Your task to perform on an android device: Go to network settings Image 0: 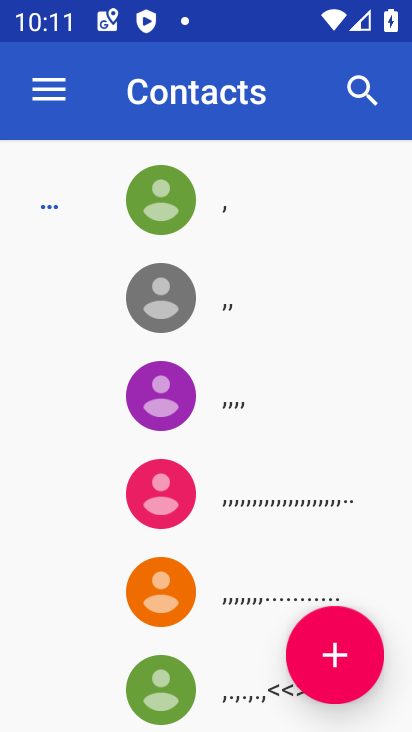
Step 0: press home button
Your task to perform on an android device: Go to network settings Image 1: 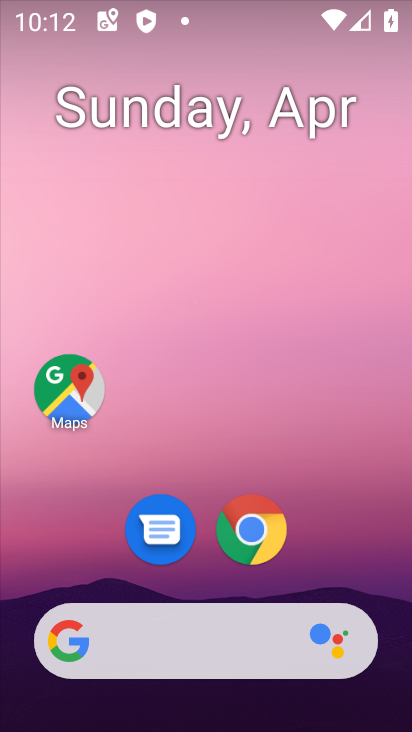
Step 1: drag from (215, 436) to (278, 69)
Your task to perform on an android device: Go to network settings Image 2: 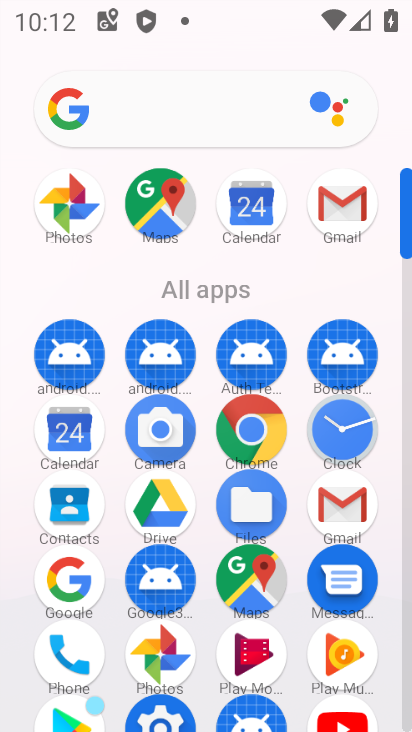
Step 2: click (167, 721)
Your task to perform on an android device: Go to network settings Image 3: 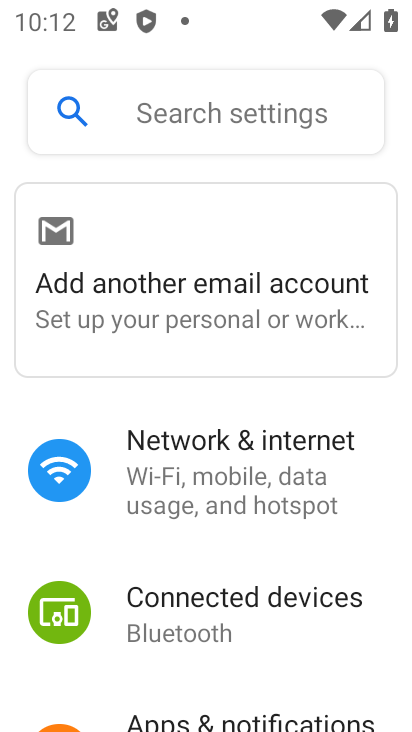
Step 3: click (295, 459)
Your task to perform on an android device: Go to network settings Image 4: 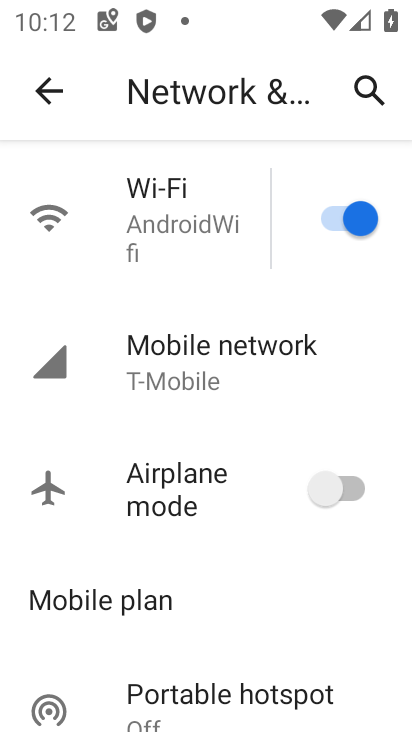
Step 4: click (287, 368)
Your task to perform on an android device: Go to network settings Image 5: 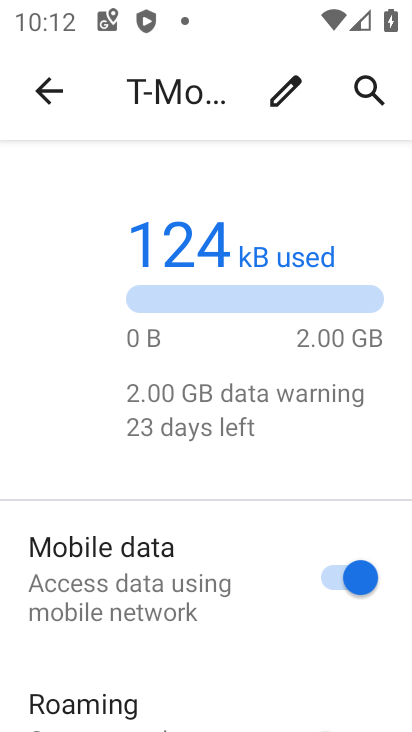
Step 5: task complete